Your task to perform on an android device: Is it going to rain tomorrow? Image 0: 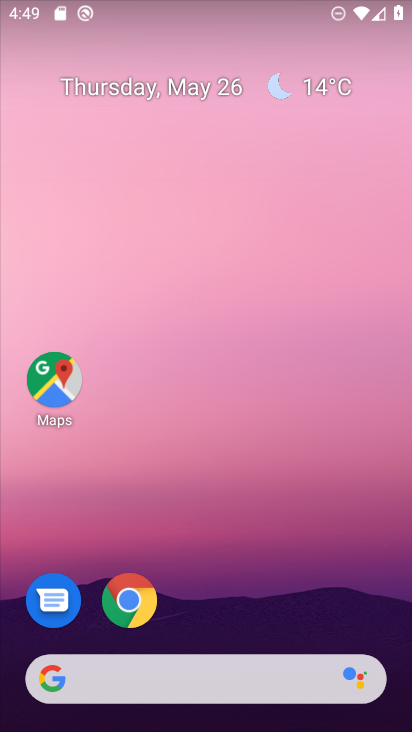
Step 0: click (212, 688)
Your task to perform on an android device: Is it going to rain tomorrow? Image 1: 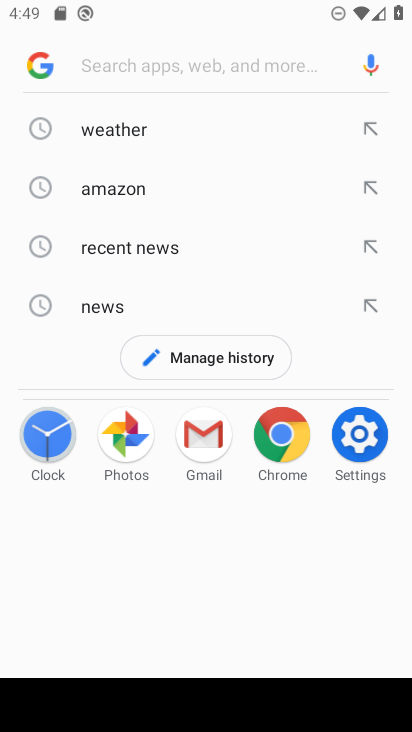
Step 1: click (109, 135)
Your task to perform on an android device: Is it going to rain tomorrow? Image 2: 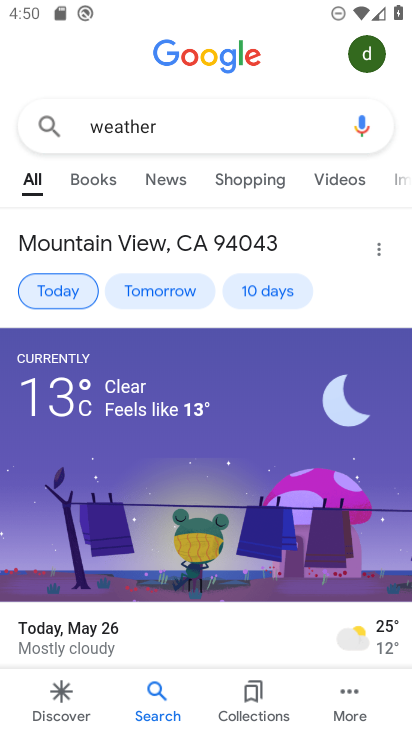
Step 2: click (160, 276)
Your task to perform on an android device: Is it going to rain tomorrow? Image 3: 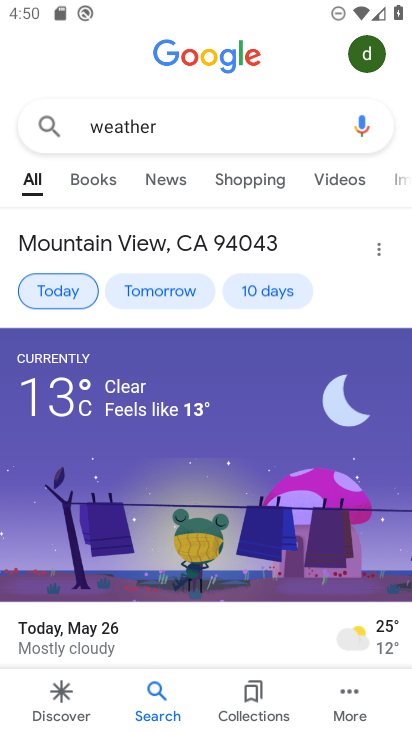
Step 3: click (161, 284)
Your task to perform on an android device: Is it going to rain tomorrow? Image 4: 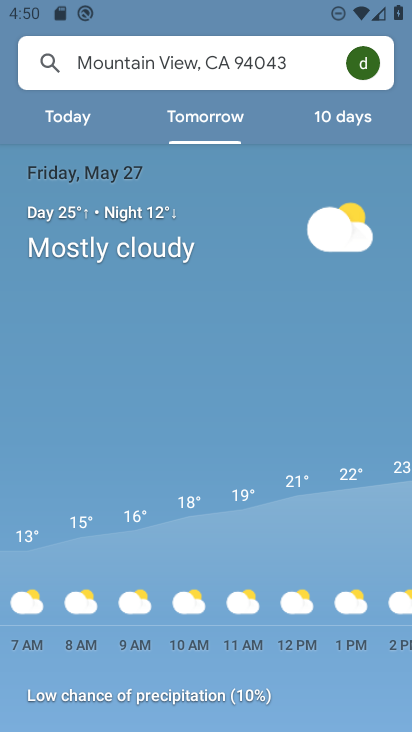
Step 4: task complete